Your task to perform on an android device: visit the assistant section in the google photos Image 0: 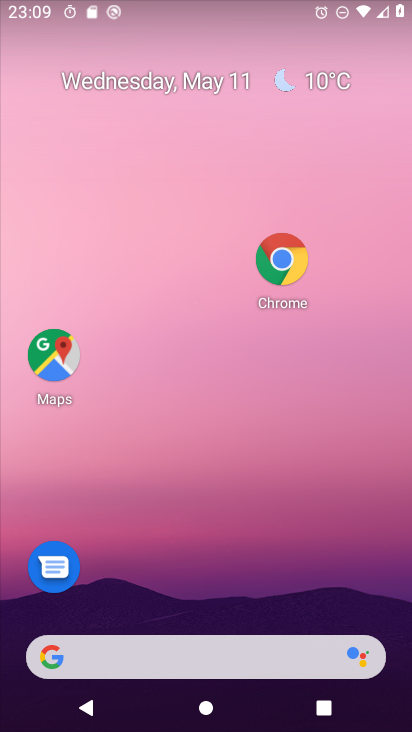
Step 0: press home button
Your task to perform on an android device: visit the assistant section in the google photos Image 1: 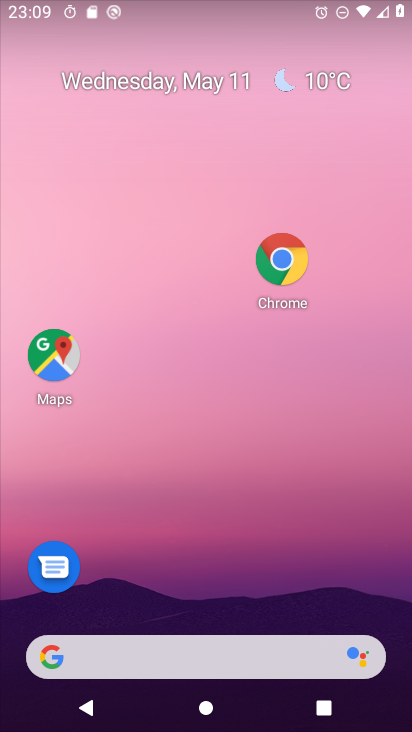
Step 1: drag from (169, 659) to (269, 186)
Your task to perform on an android device: visit the assistant section in the google photos Image 2: 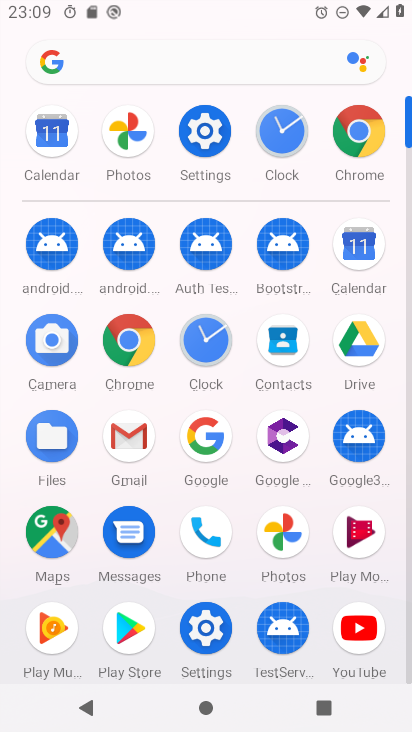
Step 2: click (279, 544)
Your task to perform on an android device: visit the assistant section in the google photos Image 3: 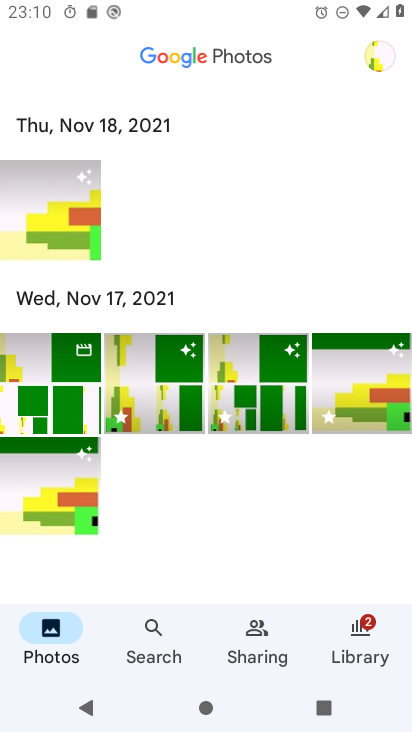
Step 3: click (160, 650)
Your task to perform on an android device: visit the assistant section in the google photos Image 4: 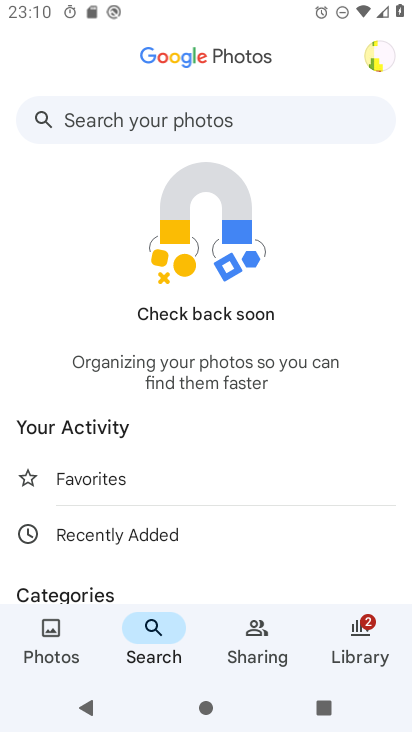
Step 4: task complete